Your task to perform on an android device: turn off wifi Image 0: 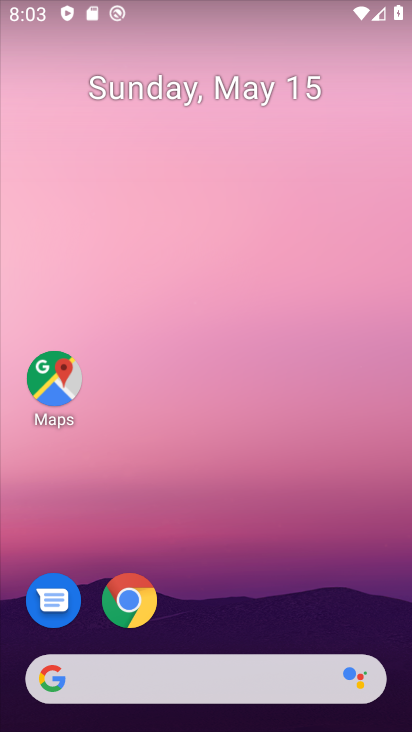
Step 0: drag from (155, 472) to (72, 93)
Your task to perform on an android device: turn off wifi Image 1: 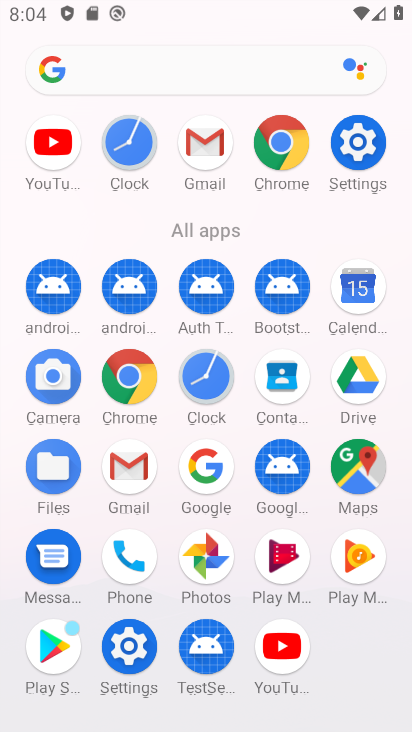
Step 1: click (361, 158)
Your task to perform on an android device: turn off wifi Image 2: 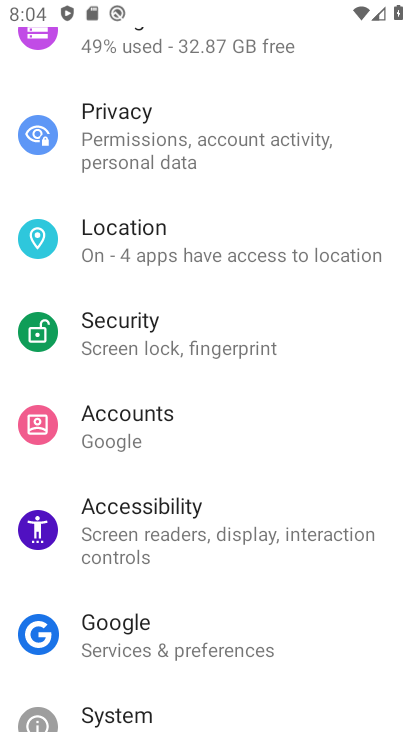
Step 2: drag from (237, 139) to (177, 579)
Your task to perform on an android device: turn off wifi Image 3: 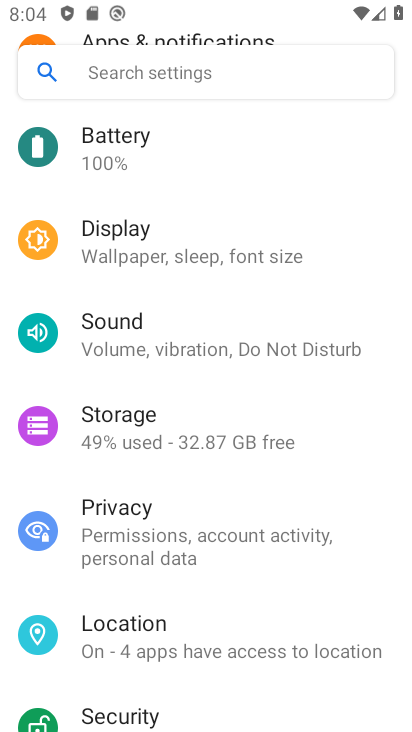
Step 3: drag from (119, 226) to (119, 587)
Your task to perform on an android device: turn off wifi Image 4: 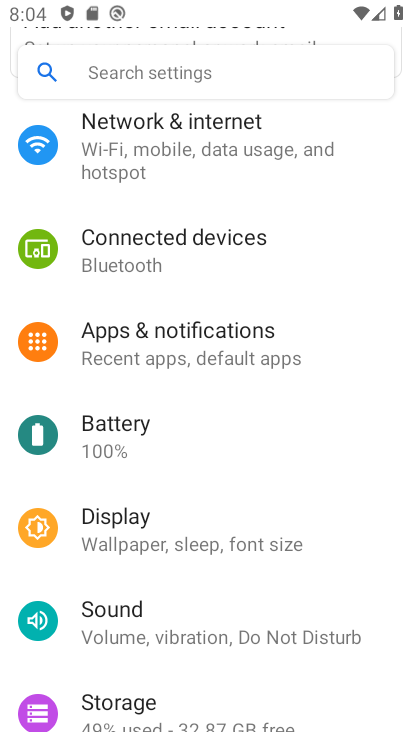
Step 4: click (124, 158)
Your task to perform on an android device: turn off wifi Image 5: 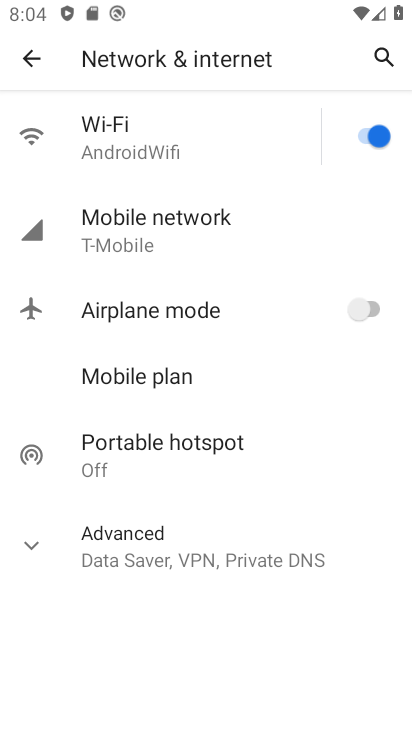
Step 5: click (124, 158)
Your task to perform on an android device: turn off wifi Image 6: 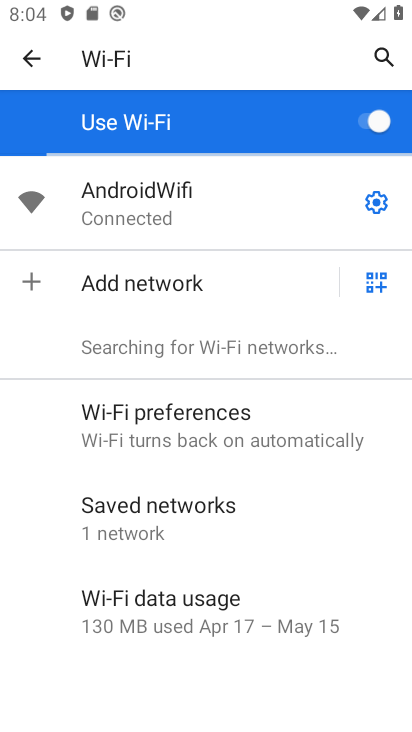
Step 6: click (379, 125)
Your task to perform on an android device: turn off wifi Image 7: 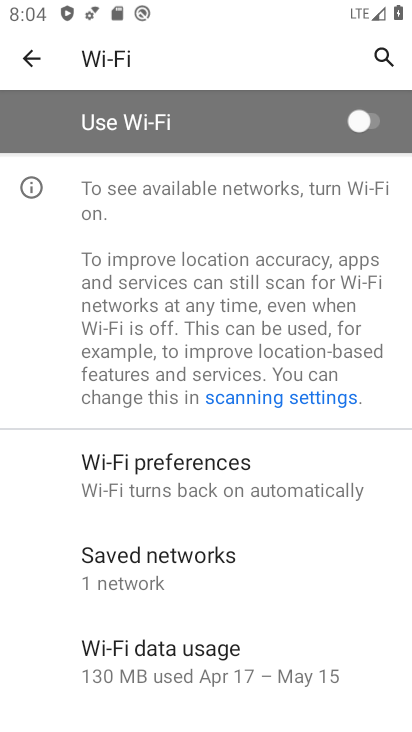
Step 7: task complete